Your task to perform on an android device: change the clock display to digital Image 0: 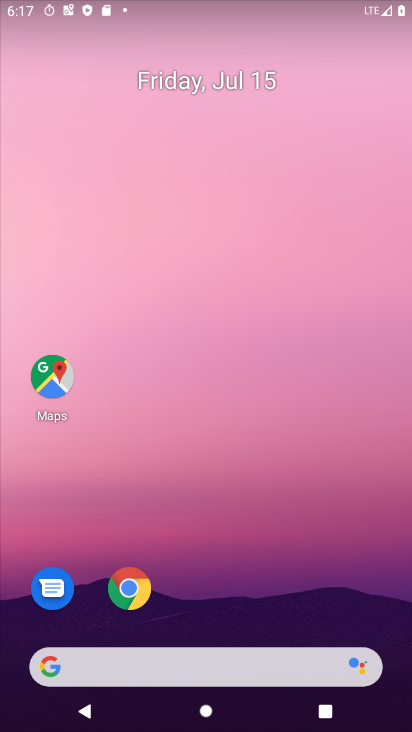
Step 0: drag from (215, 645) to (198, 161)
Your task to perform on an android device: change the clock display to digital Image 1: 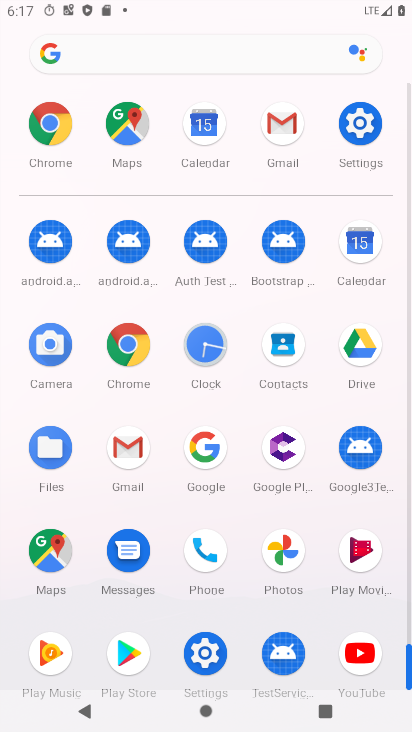
Step 1: click (197, 338)
Your task to perform on an android device: change the clock display to digital Image 2: 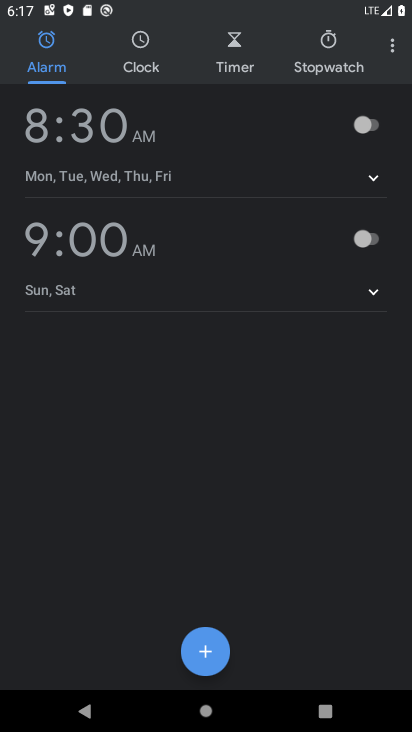
Step 2: click (395, 37)
Your task to perform on an android device: change the clock display to digital Image 3: 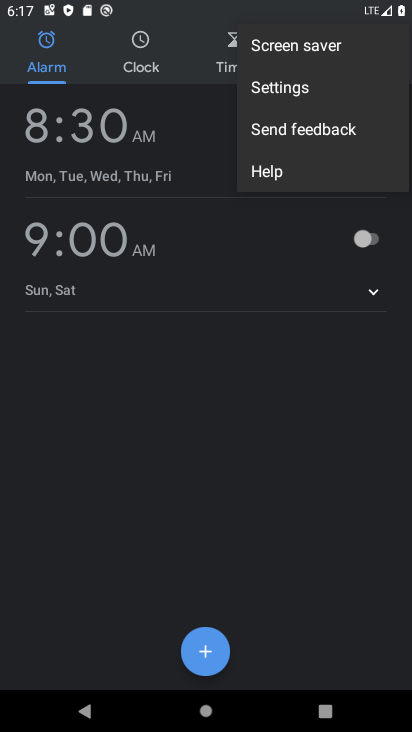
Step 3: click (326, 83)
Your task to perform on an android device: change the clock display to digital Image 4: 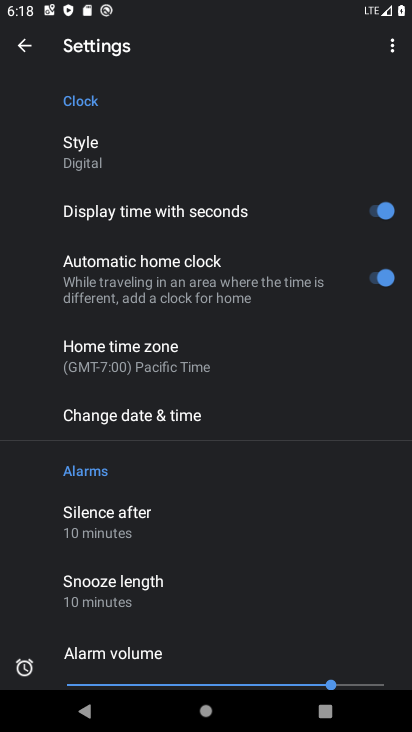
Step 4: task complete